Your task to perform on an android device: What's on my calendar tomorrow? Image 0: 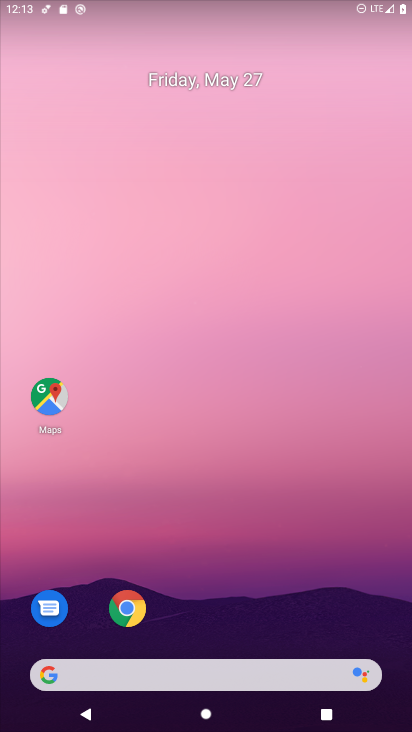
Step 0: drag from (88, 666) to (345, 136)
Your task to perform on an android device: What's on my calendar tomorrow? Image 1: 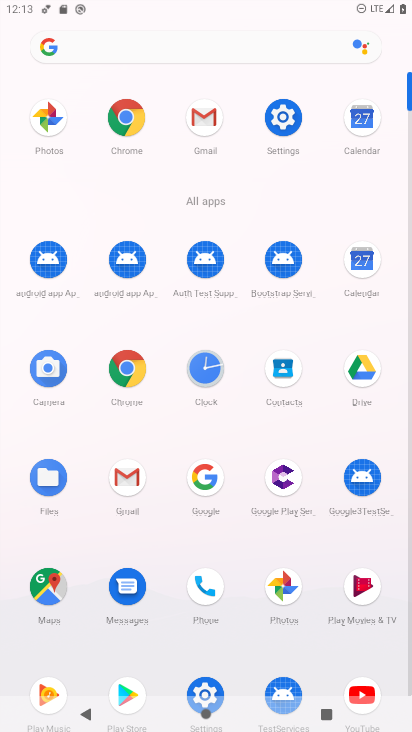
Step 1: click (363, 265)
Your task to perform on an android device: What's on my calendar tomorrow? Image 2: 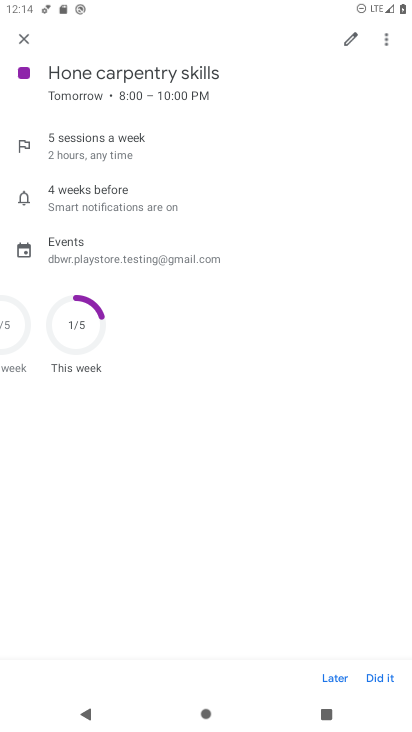
Step 2: task complete